Your task to perform on an android device: see creations saved in the google photos Image 0: 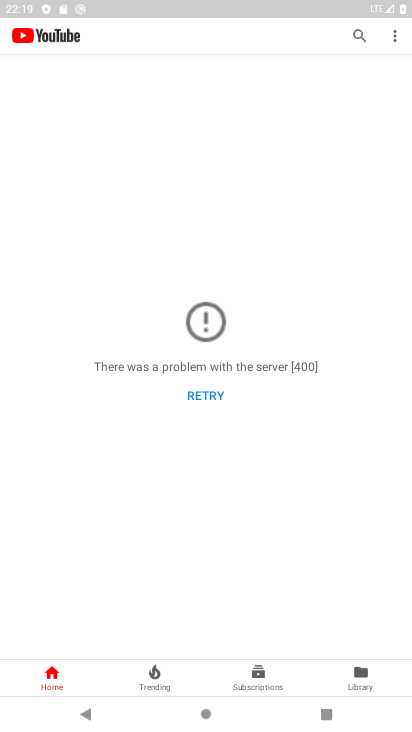
Step 0: press home button
Your task to perform on an android device: see creations saved in the google photos Image 1: 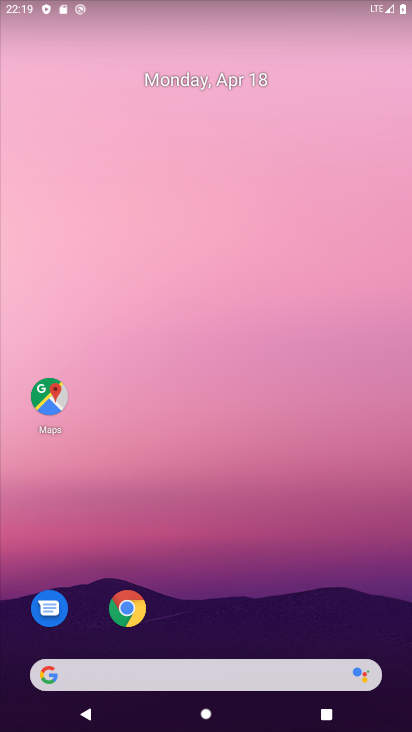
Step 1: drag from (221, 602) to (208, 77)
Your task to perform on an android device: see creations saved in the google photos Image 2: 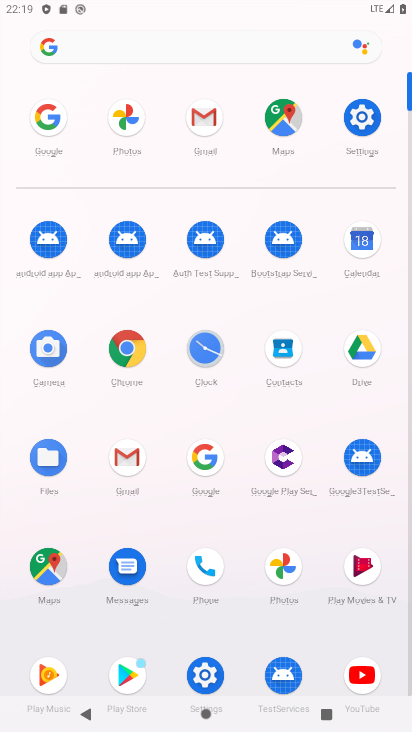
Step 2: click (284, 567)
Your task to perform on an android device: see creations saved in the google photos Image 3: 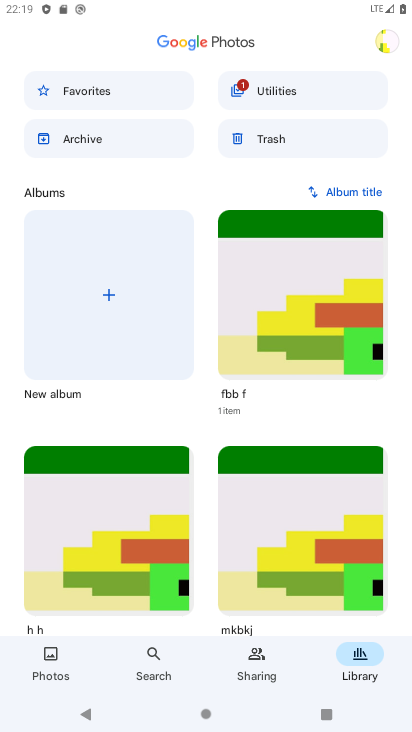
Step 3: click (161, 659)
Your task to perform on an android device: see creations saved in the google photos Image 4: 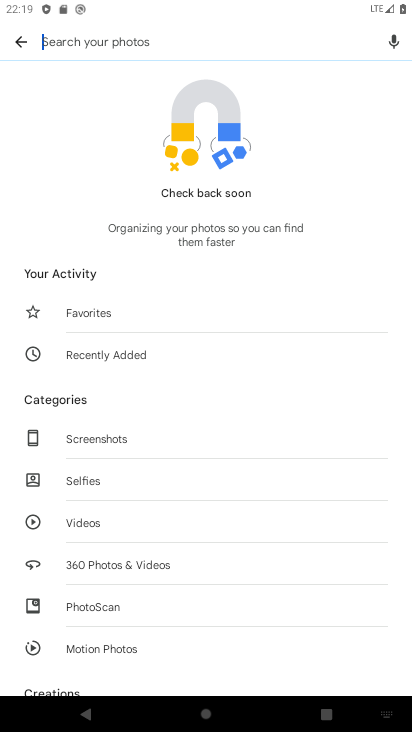
Step 4: type "creations"
Your task to perform on an android device: see creations saved in the google photos Image 5: 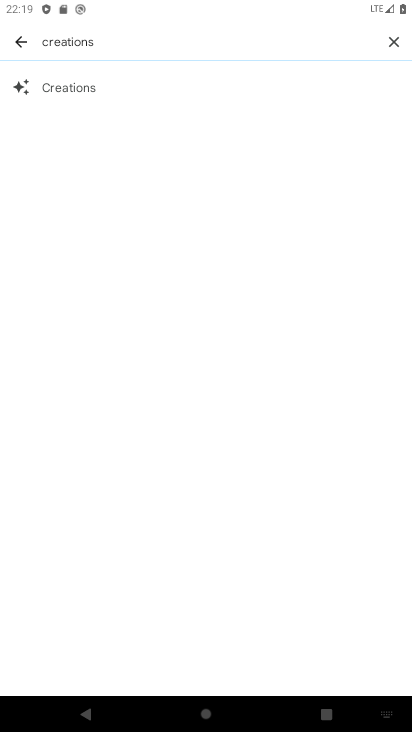
Step 5: click (76, 90)
Your task to perform on an android device: see creations saved in the google photos Image 6: 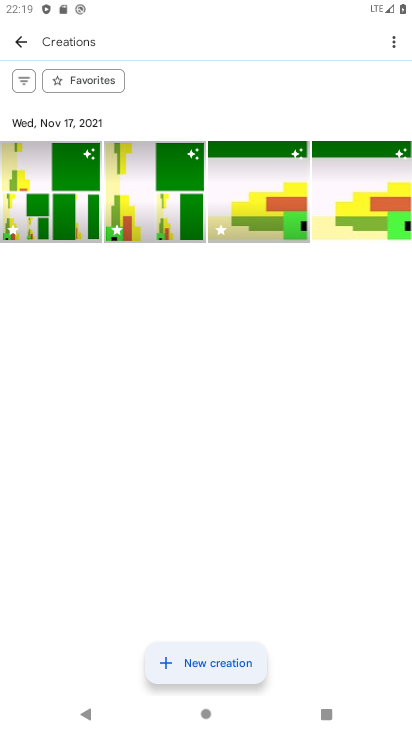
Step 6: task complete